Your task to perform on an android device: change your default location settings in chrome Image 0: 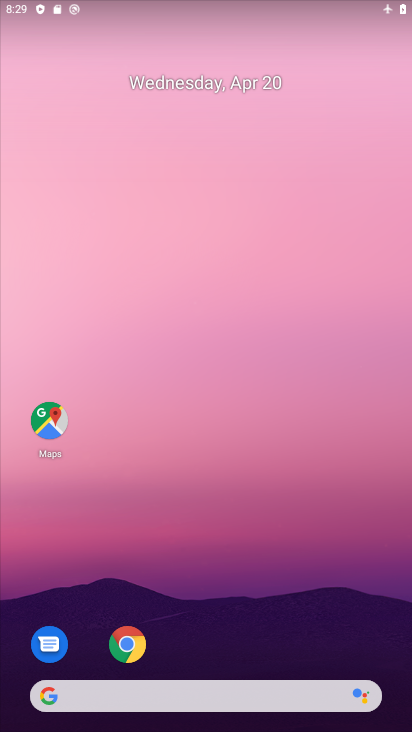
Step 0: drag from (353, 644) to (257, 141)
Your task to perform on an android device: change your default location settings in chrome Image 1: 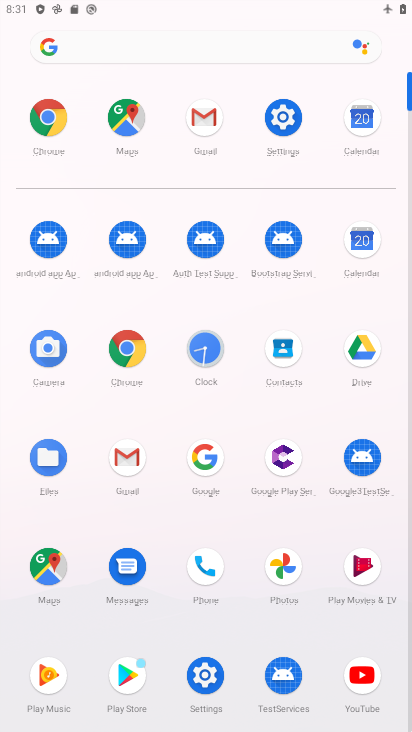
Step 1: click (118, 344)
Your task to perform on an android device: change your default location settings in chrome Image 2: 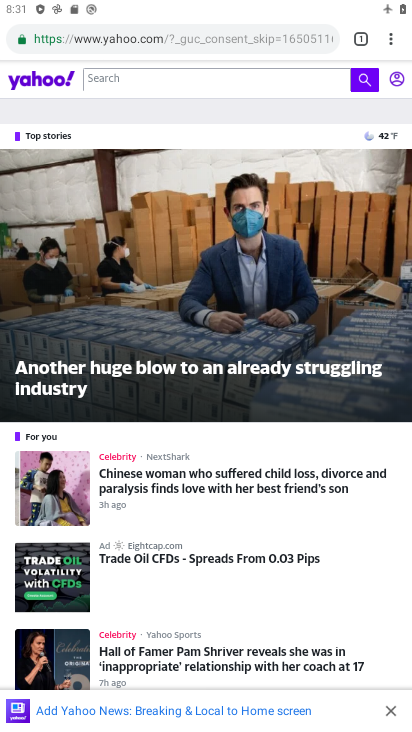
Step 2: press back button
Your task to perform on an android device: change your default location settings in chrome Image 3: 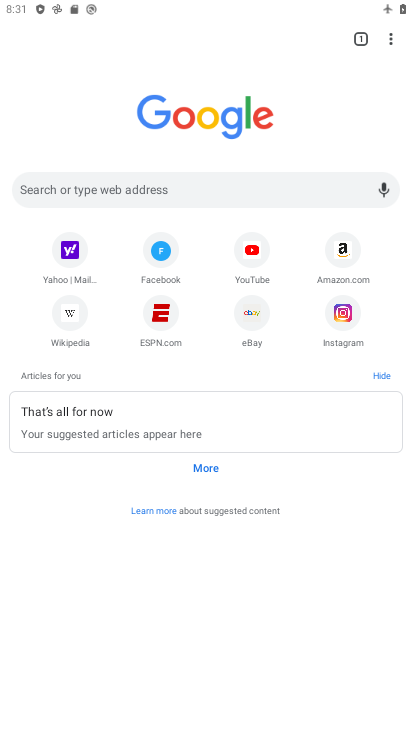
Step 3: click (387, 38)
Your task to perform on an android device: change your default location settings in chrome Image 4: 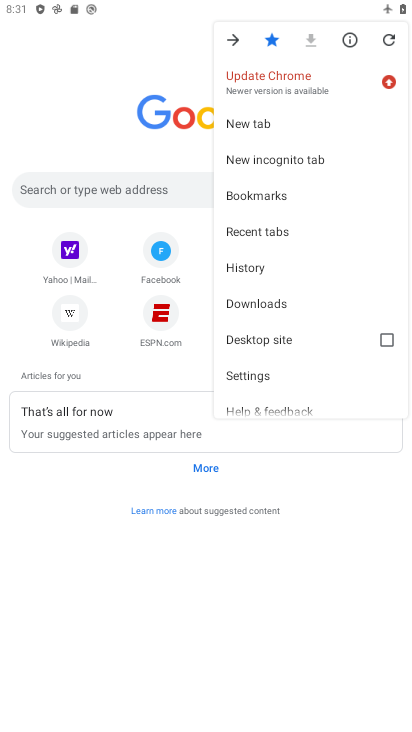
Step 4: click (261, 369)
Your task to perform on an android device: change your default location settings in chrome Image 5: 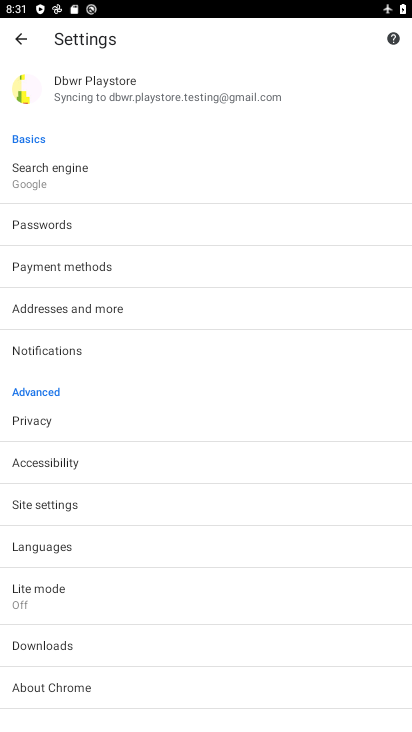
Step 5: click (49, 180)
Your task to perform on an android device: change your default location settings in chrome Image 6: 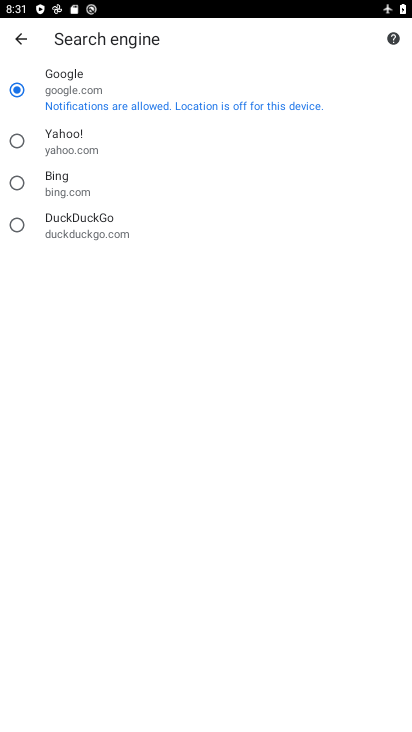
Step 6: click (78, 145)
Your task to perform on an android device: change your default location settings in chrome Image 7: 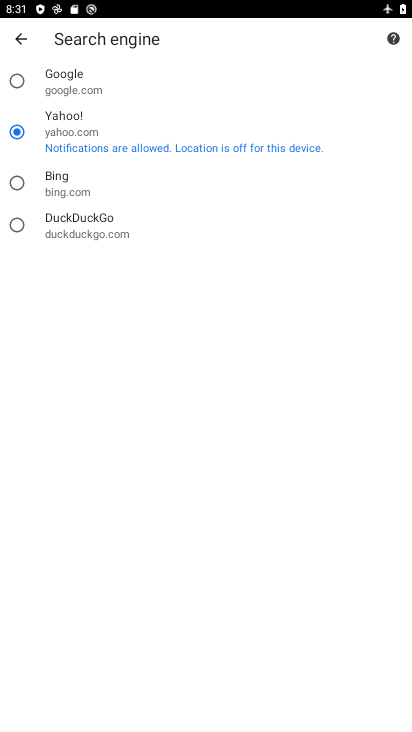
Step 7: task complete